Your task to perform on an android device: What's the weather today? Image 0: 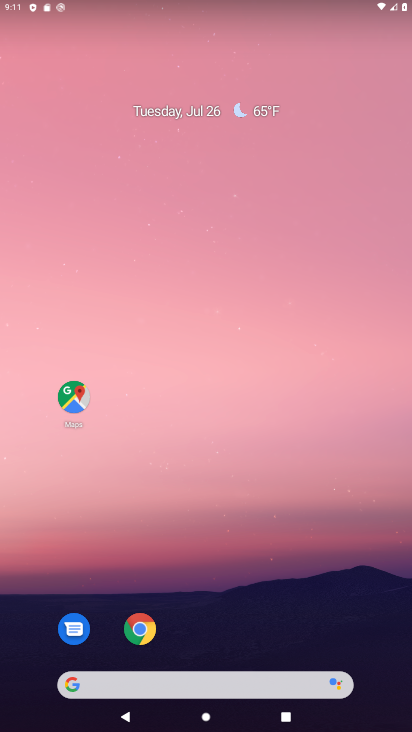
Step 0: drag from (286, 632) to (189, 66)
Your task to perform on an android device: What's the weather today? Image 1: 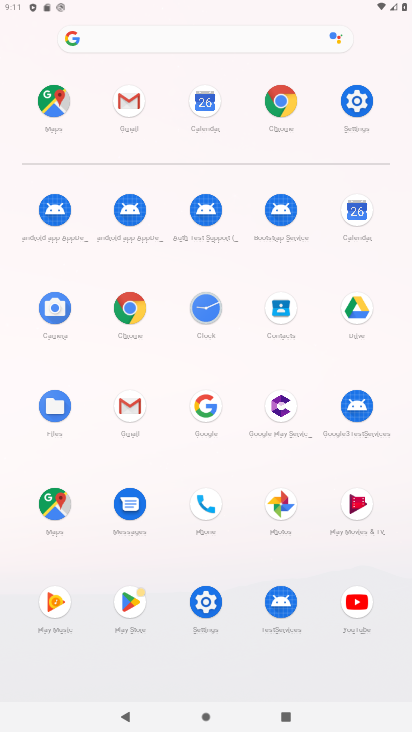
Step 1: click (274, 98)
Your task to perform on an android device: What's the weather today? Image 2: 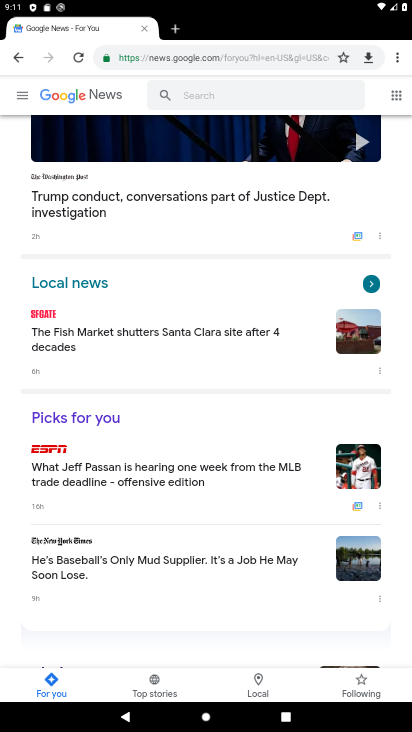
Step 2: click (249, 64)
Your task to perform on an android device: What's the weather today? Image 3: 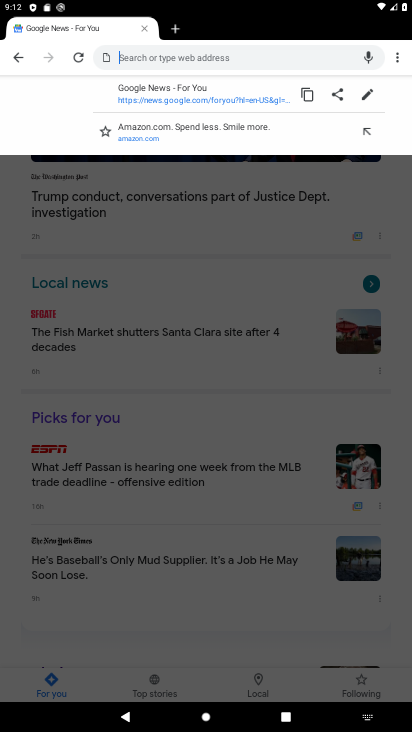
Step 3: type "weather"
Your task to perform on an android device: What's the weather today? Image 4: 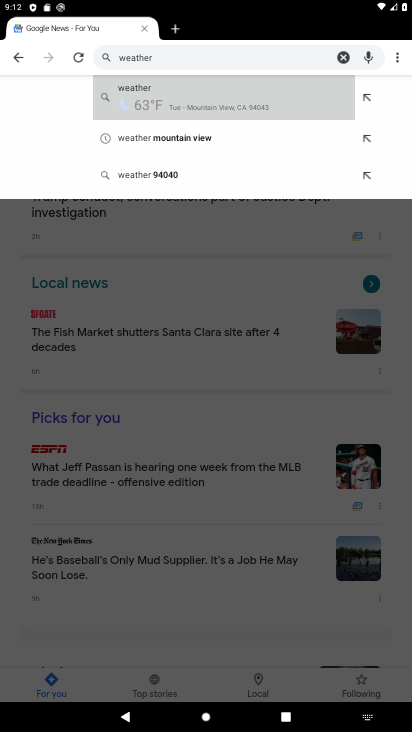
Step 4: click (125, 91)
Your task to perform on an android device: What's the weather today? Image 5: 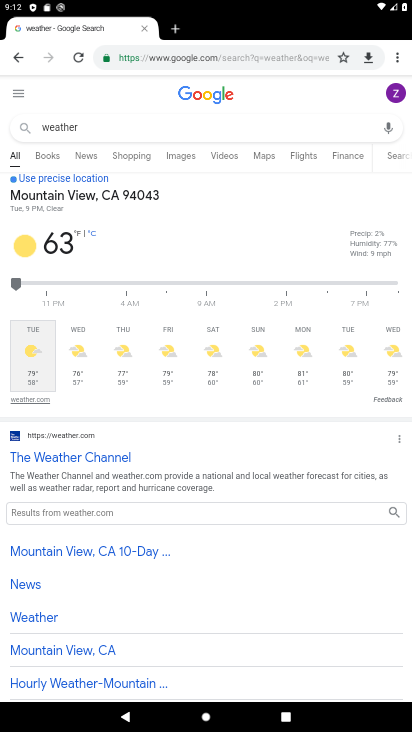
Step 5: task complete